Your task to perform on an android device: Turn off the flashlight Image 0: 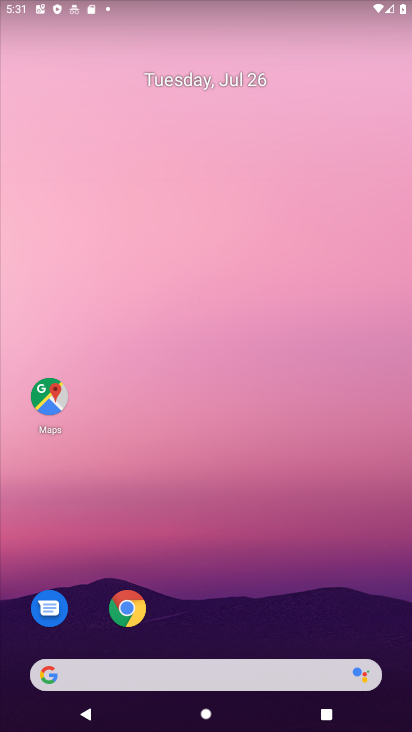
Step 0: press home button
Your task to perform on an android device: Turn off the flashlight Image 1: 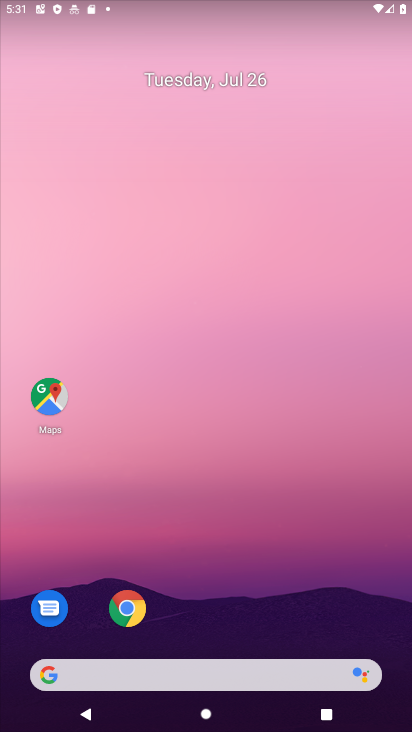
Step 1: task complete